Your task to perform on an android device: Search for Mexican restaurants on Maps Image 0: 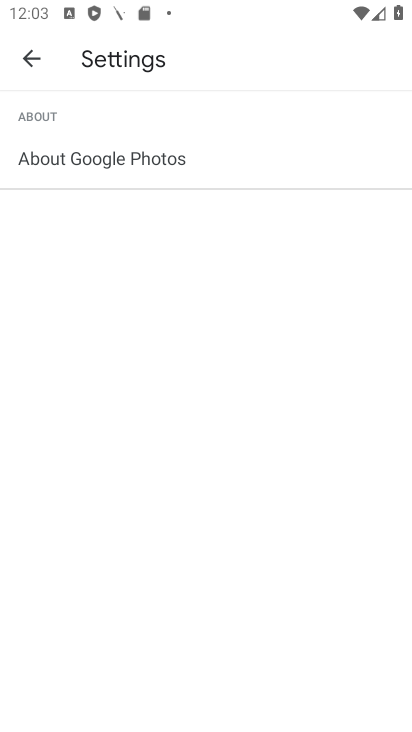
Step 0: press home button
Your task to perform on an android device: Search for Mexican restaurants on Maps Image 1: 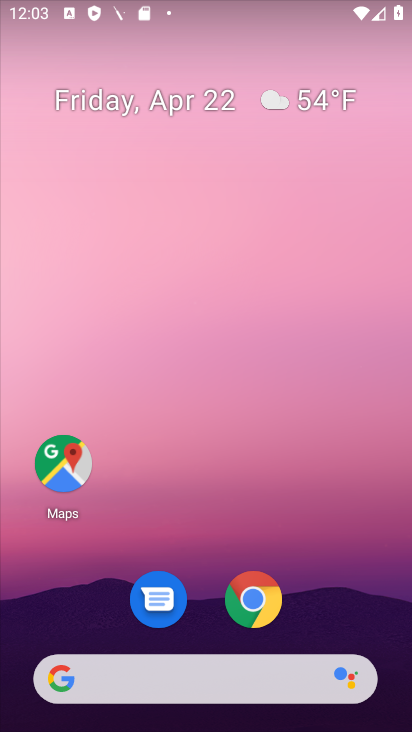
Step 1: click (74, 455)
Your task to perform on an android device: Search for Mexican restaurants on Maps Image 2: 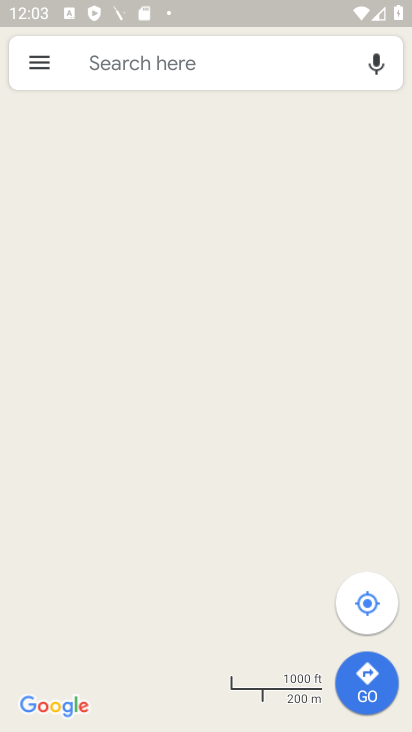
Step 2: click (212, 67)
Your task to perform on an android device: Search for Mexican restaurants on Maps Image 3: 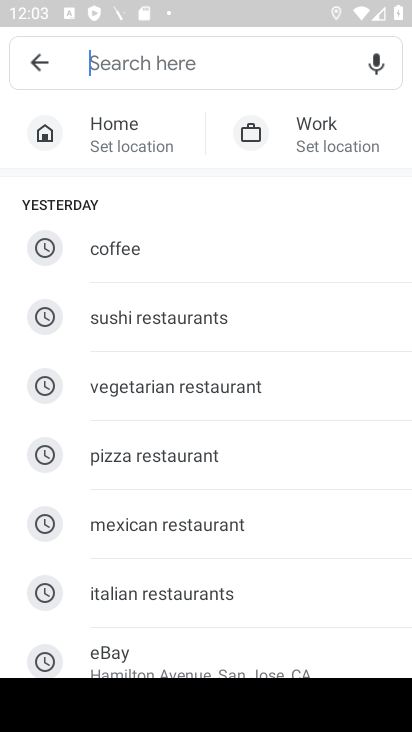
Step 3: type "Mexican restaurants"
Your task to perform on an android device: Search for Mexican restaurants on Maps Image 4: 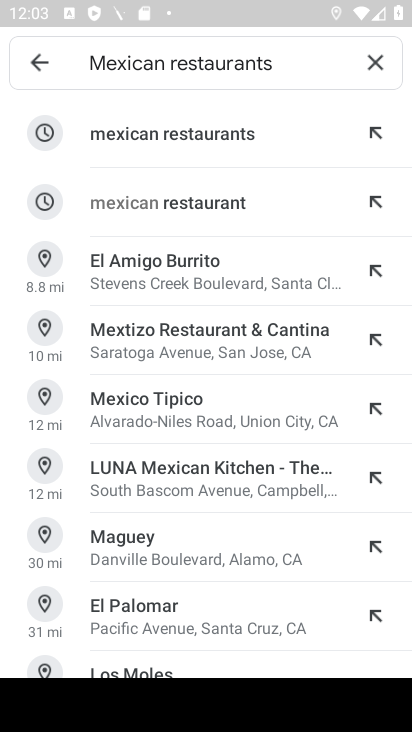
Step 4: click (230, 137)
Your task to perform on an android device: Search for Mexican restaurants on Maps Image 5: 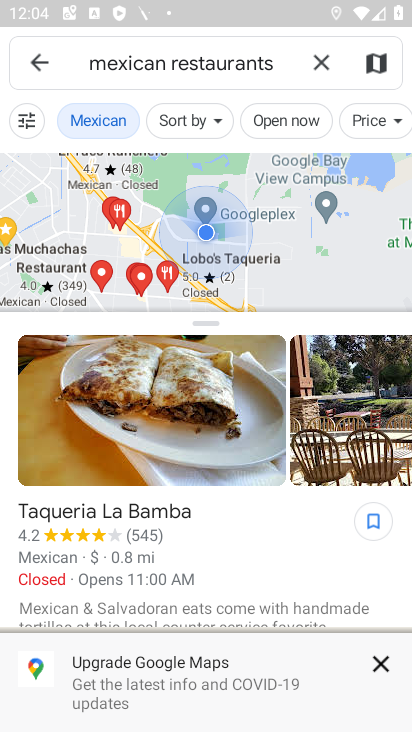
Step 5: task complete